Your task to perform on an android device: turn off location Image 0: 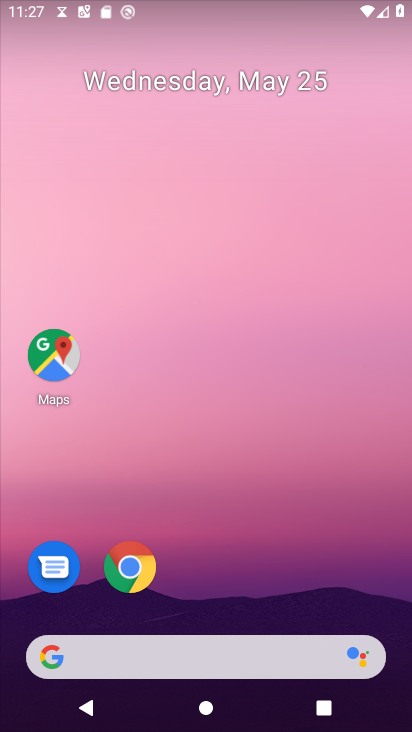
Step 0: drag from (269, 572) to (214, 3)
Your task to perform on an android device: turn off location Image 1: 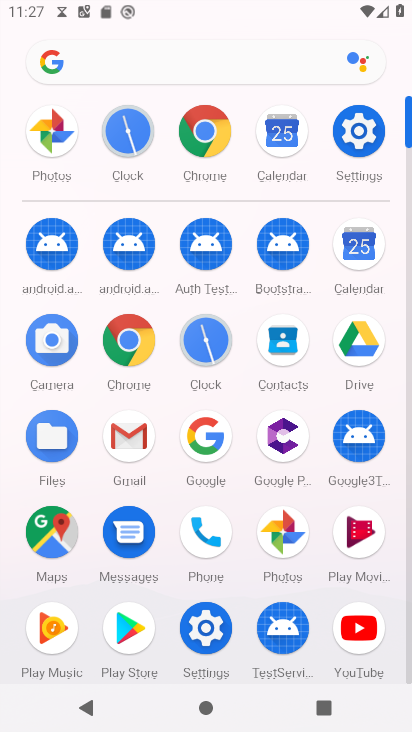
Step 1: click (343, 149)
Your task to perform on an android device: turn off location Image 2: 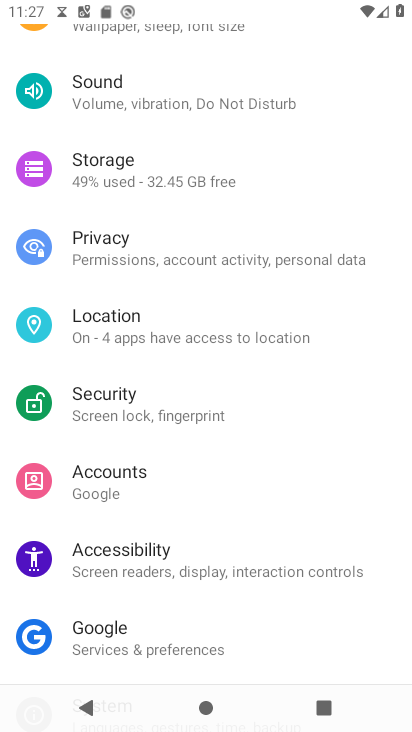
Step 2: click (115, 332)
Your task to perform on an android device: turn off location Image 3: 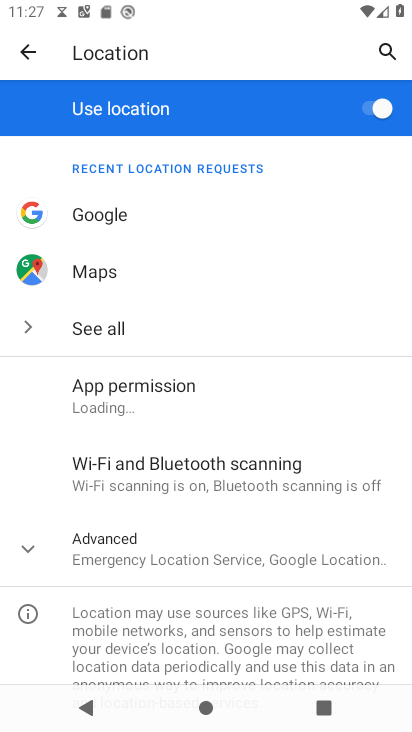
Step 3: click (378, 102)
Your task to perform on an android device: turn off location Image 4: 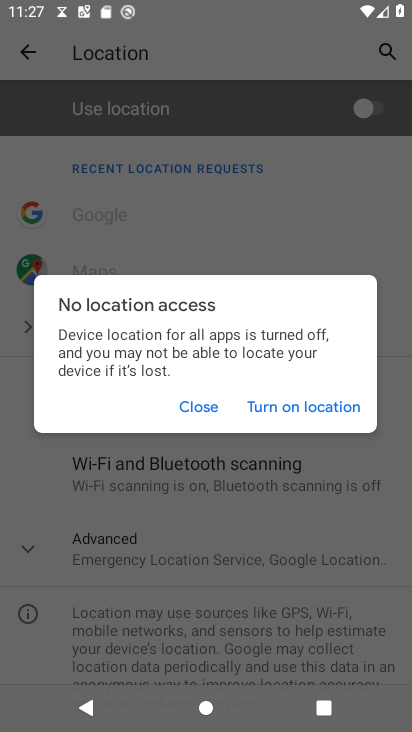
Step 4: task complete